Your task to perform on an android device: Open Google Maps Image 0: 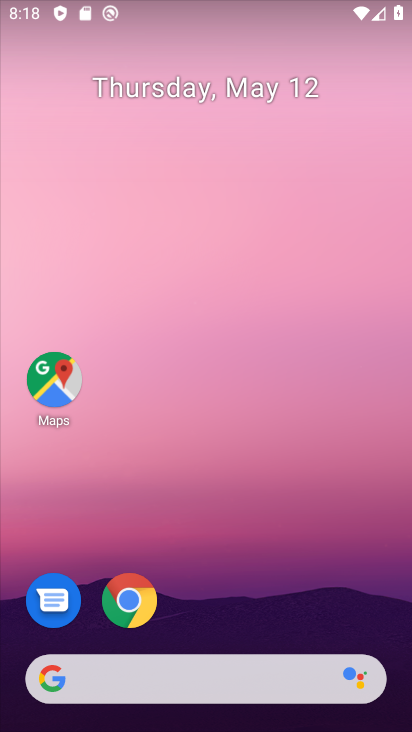
Step 0: drag from (300, 578) to (329, 8)
Your task to perform on an android device: Open Google Maps Image 1: 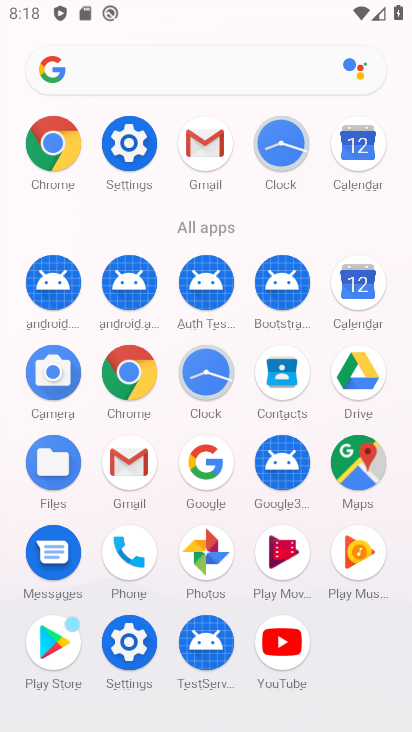
Step 1: click (217, 480)
Your task to perform on an android device: Open Google Maps Image 2: 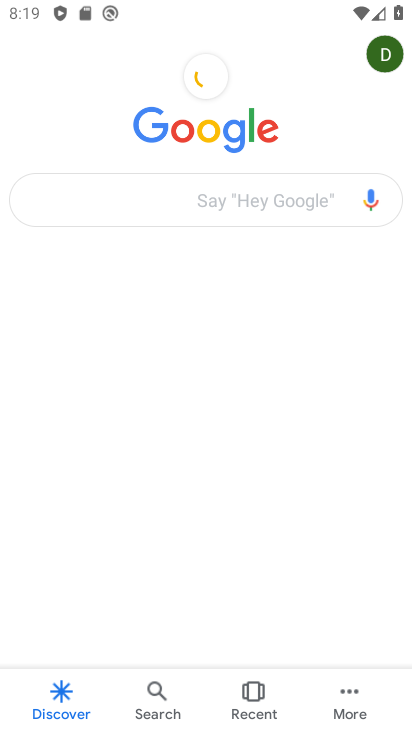
Step 2: press home button
Your task to perform on an android device: Open Google Maps Image 3: 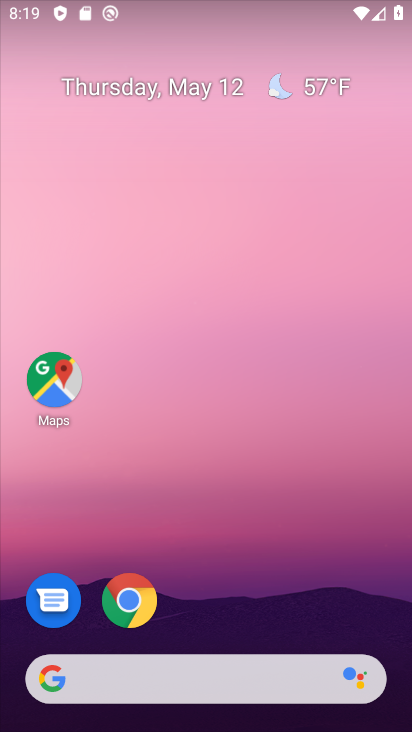
Step 3: click (59, 383)
Your task to perform on an android device: Open Google Maps Image 4: 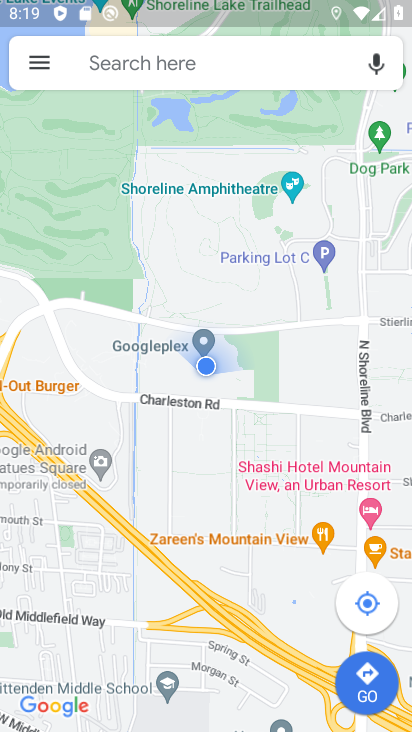
Step 4: task complete